Your task to perform on an android device: delete a single message in the gmail app Image 0: 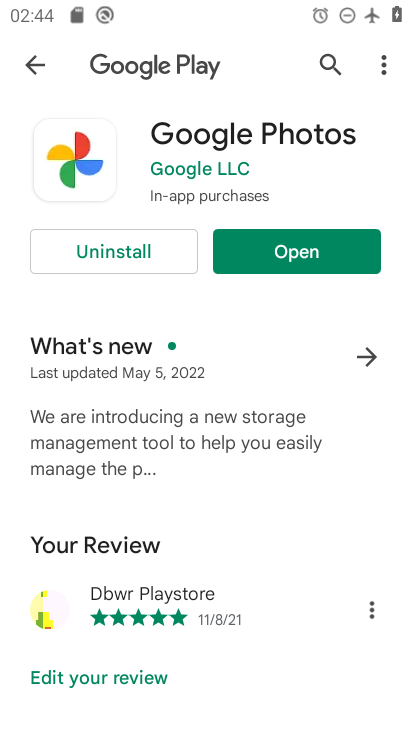
Step 0: press home button
Your task to perform on an android device: delete a single message in the gmail app Image 1: 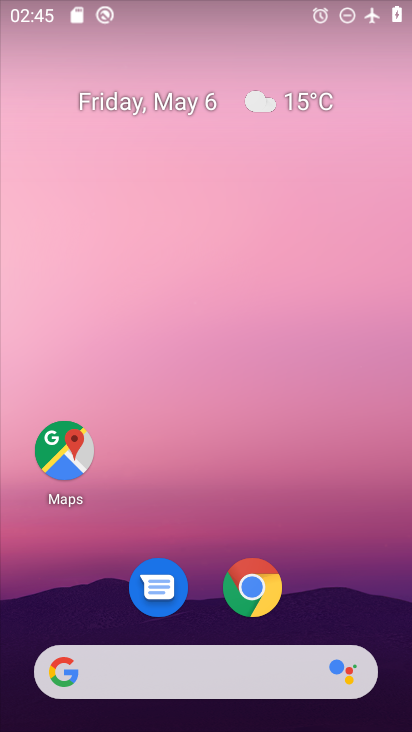
Step 1: drag from (343, 566) to (273, 38)
Your task to perform on an android device: delete a single message in the gmail app Image 2: 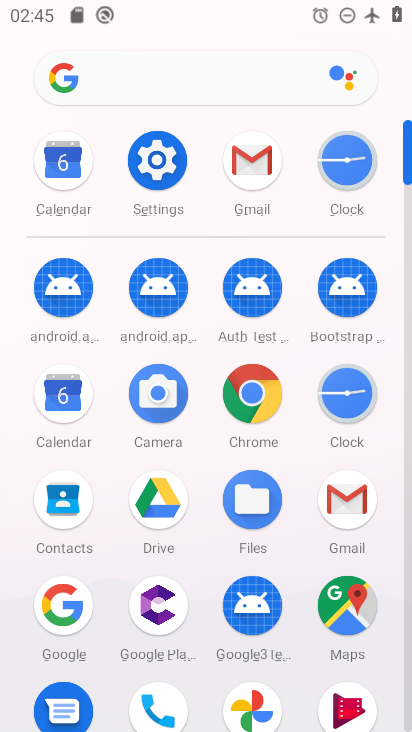
Step 2: click (343, 494)
Your task to perform on an android device: delete a single message in the gmail app Image 3: 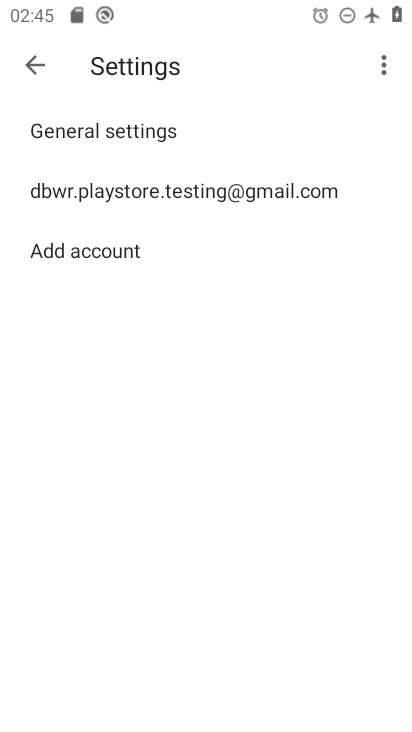
Step 3: click (26, 66)
Your task to perform on an android device: delete a single message in the gmail app Image 4: 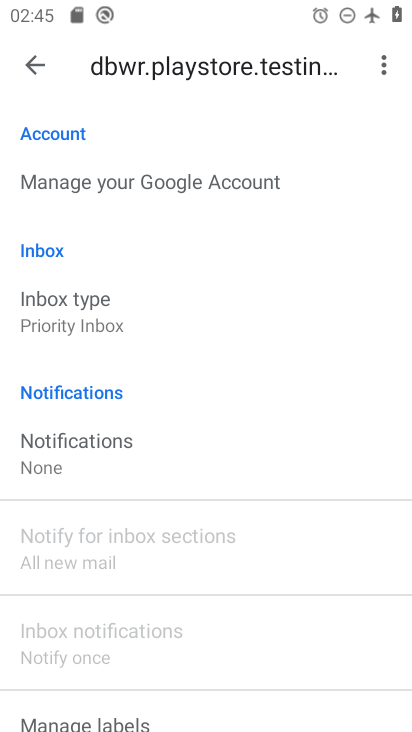
Step 4: click (36, 70)
Your task to perform on an android device: delete a single message in the gmail app Image 5: 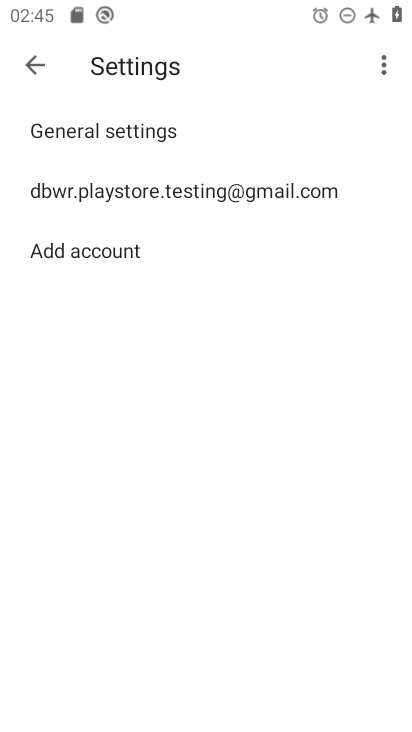
Step 5: click (30, 62)
Your task to perform on an android device: delete a single message in the gmail app Image 6: 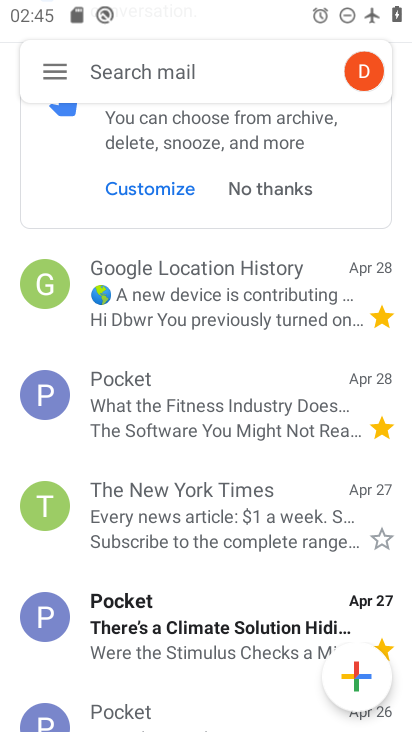
Step 6: click (208, 274)
Your task to perform on an android device: delete a single message in the gmail app Image 7: 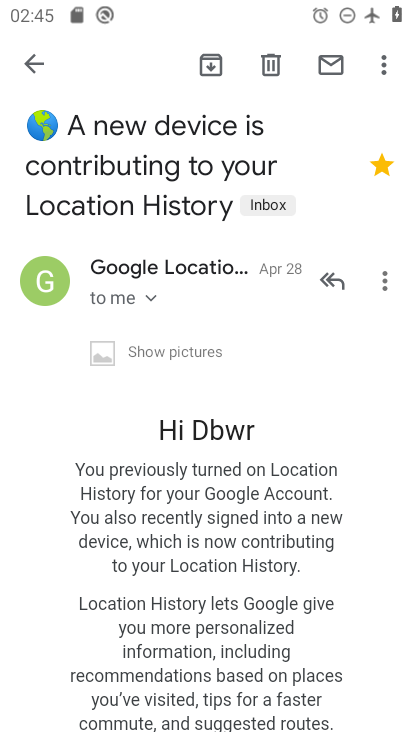
Step 7: click (273, 65)
Your task to perform on an android device: delete a single message in the gmail app Image 8: 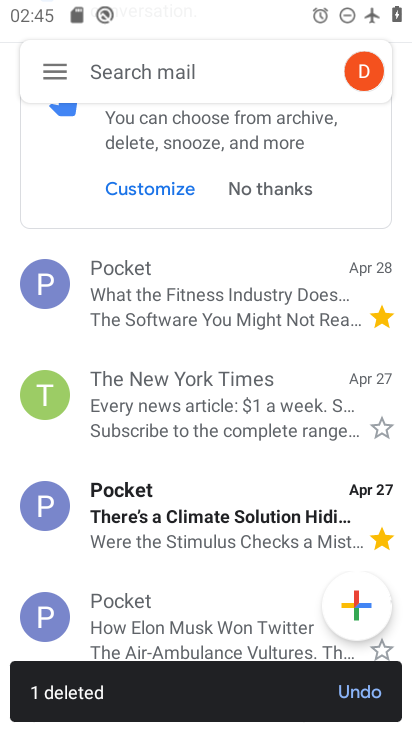
Step 8: task complete